Your task to perform on an android device: open a new tab in the chrome app Image 0: 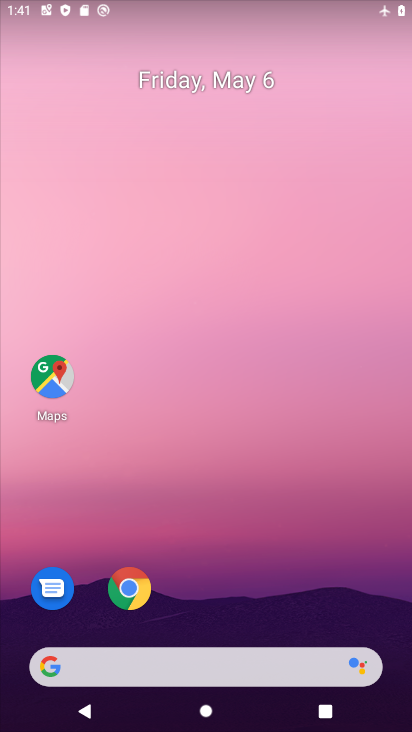
Step 0: drag from (396, 595) to (395, 165)
Your task to perform on an android device: open a new tab in the chrome app Image 1: 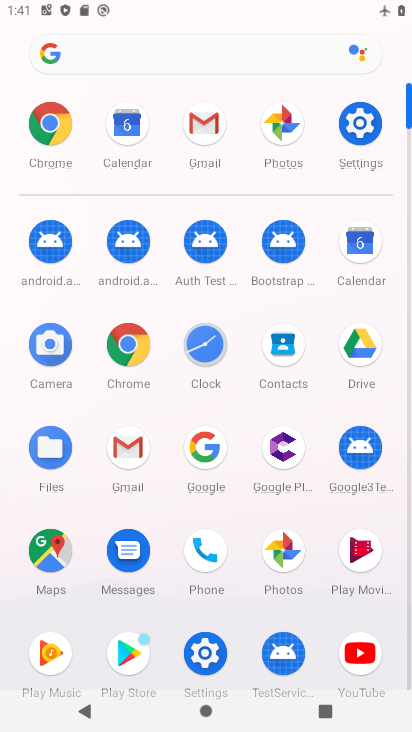
Step 1: click (133, 356)
Your task to perform on an android device: open a new tab in the chrome app Image 2: 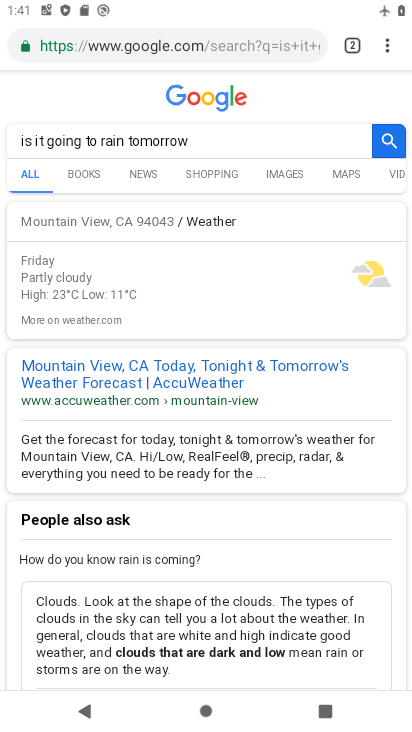
Step 2: click (351, 41)
Your task to perform on an android device: open a new tab in the chrome app Image 3: 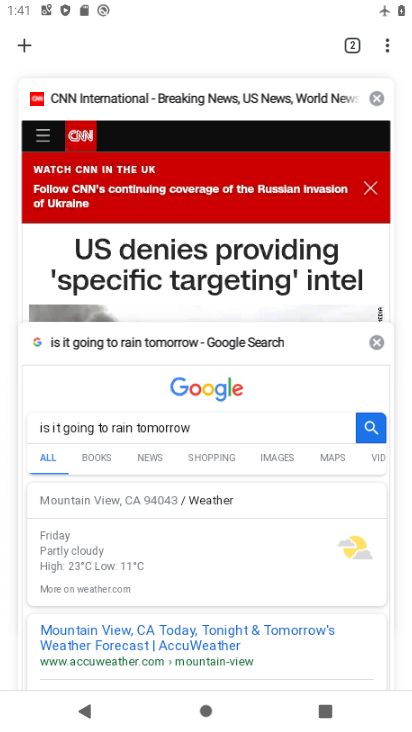
Step 3: click (21, 45)
Your task to perform on an android device: open a new tab in the chrome app Image 4: 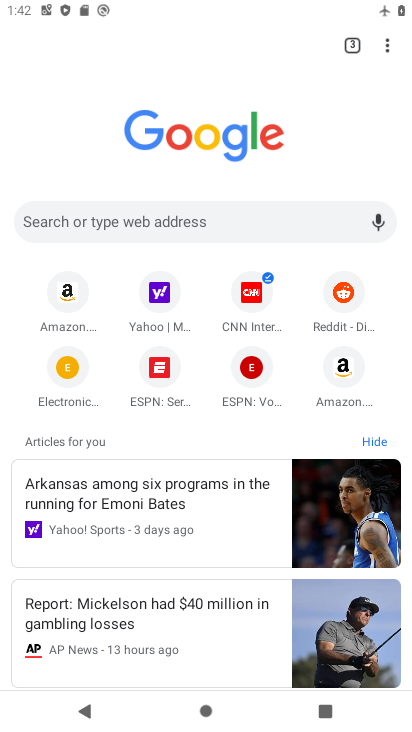
Step 4: task complete